Your task to perform on an android device: change keyboard looks Image 0: 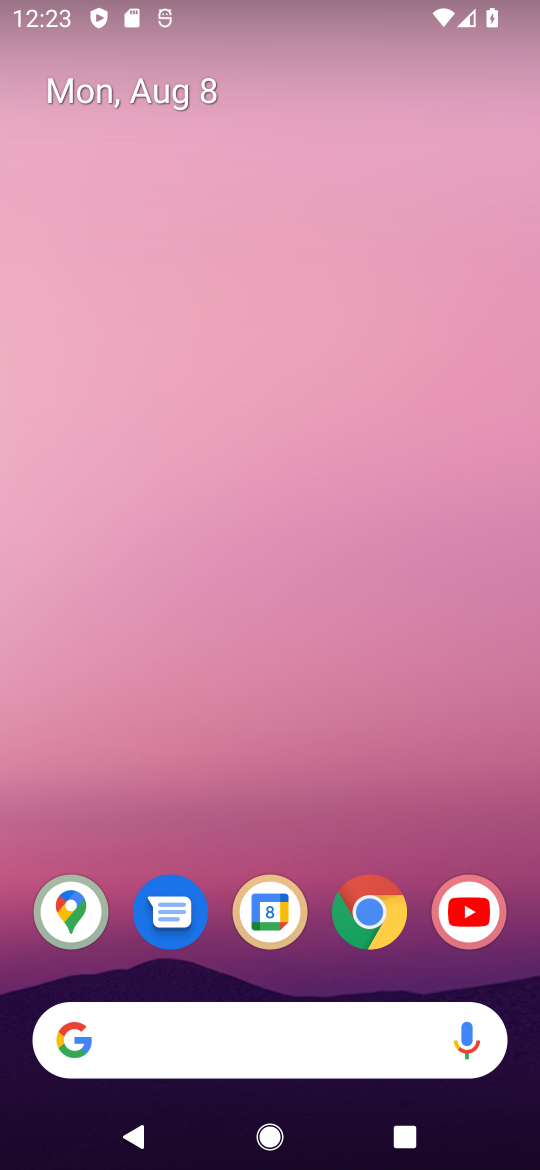
Step 0: drag from (251, 957) to (361, 34)
Your task to perform on an android device: change keyboard looks Image 1: 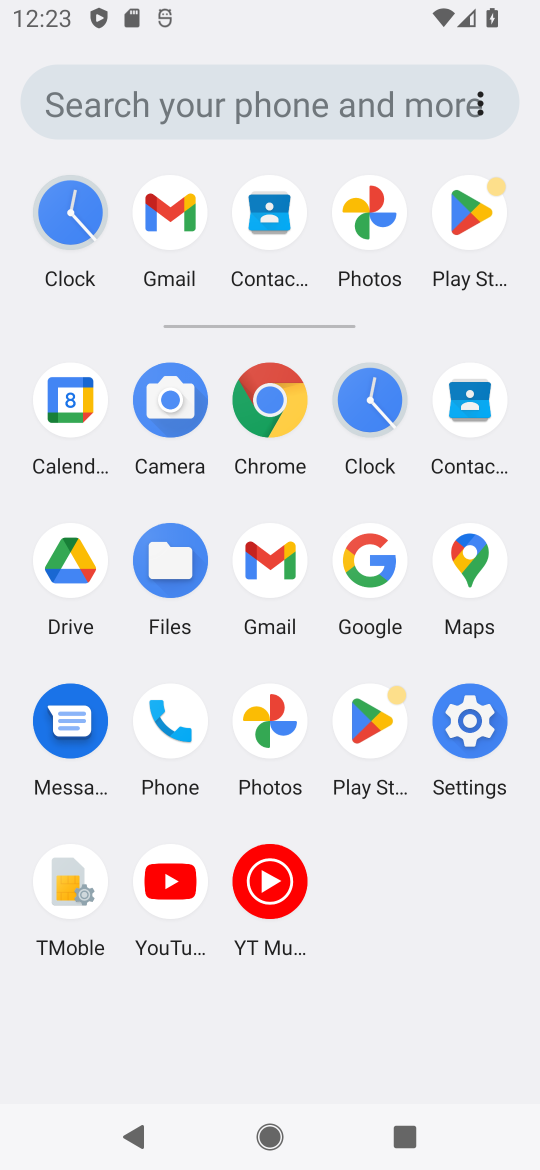
Step 1: click (464, 727)
Your task to perform on an android device: change keyboard looks Image 2: 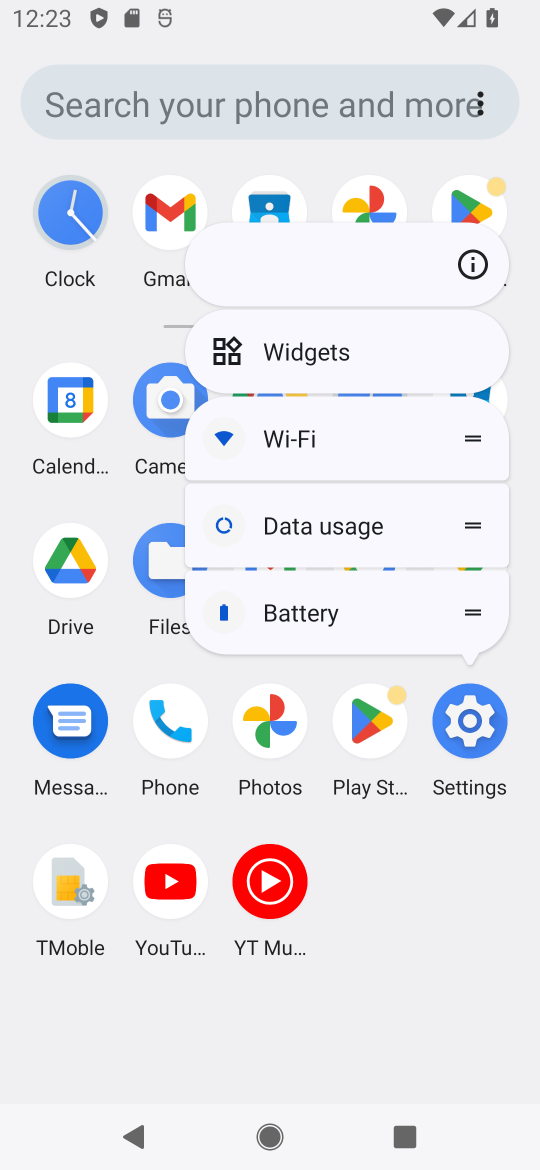
Step 2: click (450, 715)
Your task to perform on an android device: change keyboard looks Image 3: 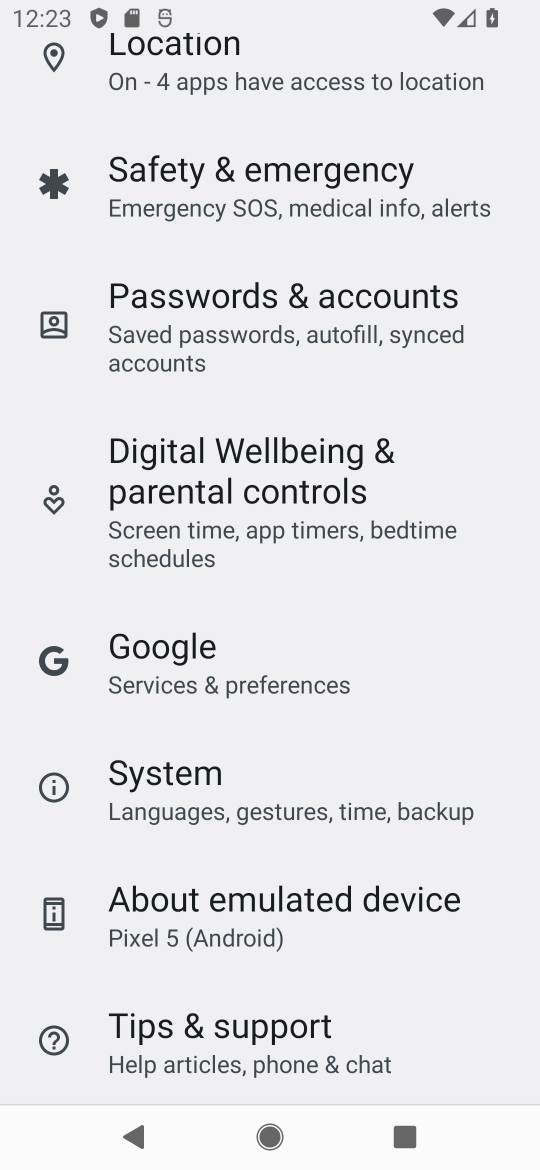
Step 3: drag from (247, 991) to (369, 28)
Your task to perform on an android device: change keyboard looks Image 4: 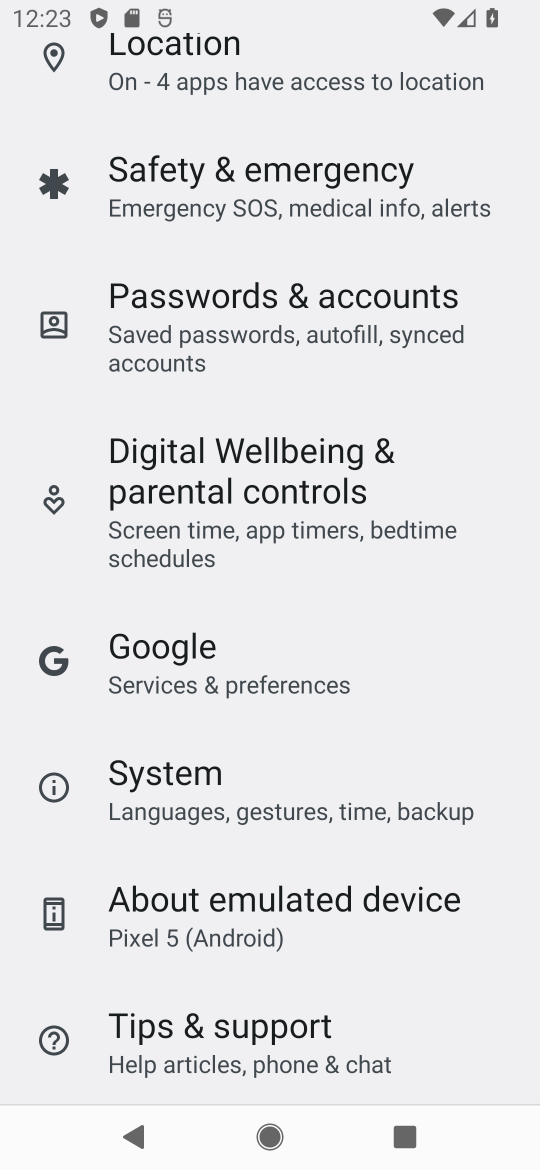
Step 4: click (193, 791)
Your task to perform on an android device: change keyboard looks Image 5: 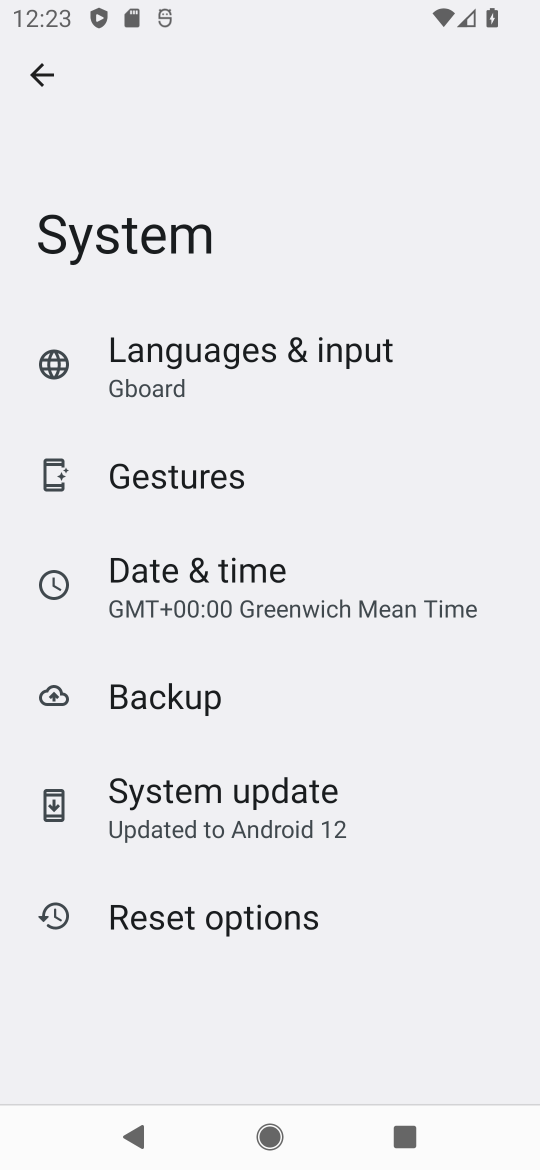
Step 5: click (197, 347)
Your task to perform on an android device: change keyboard looks Image 6: 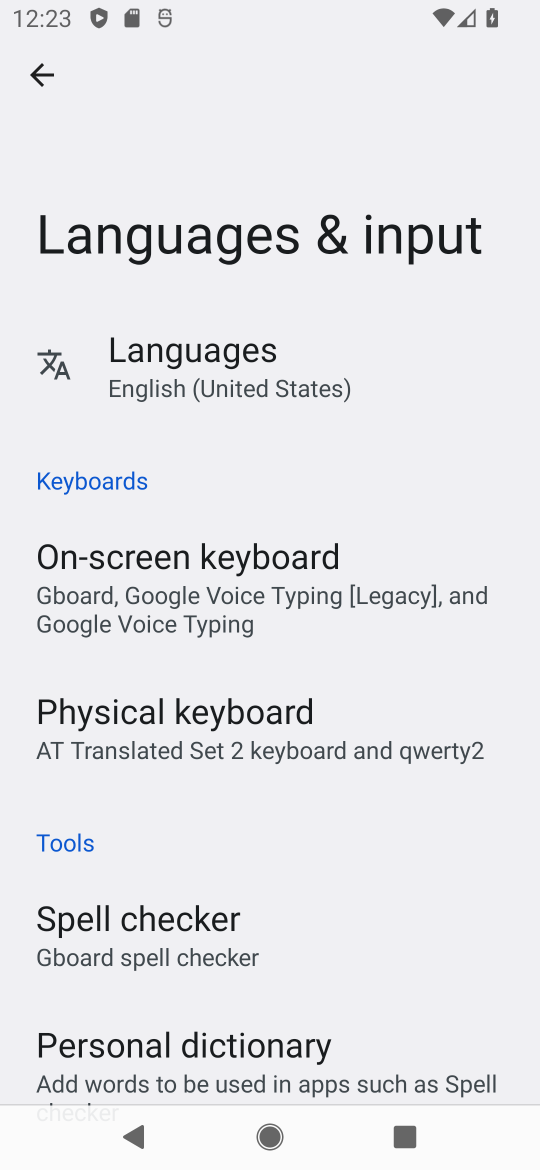
Step 6: click (218, 575)
Your task to perform on an android device: change keyboard looks Image 7: 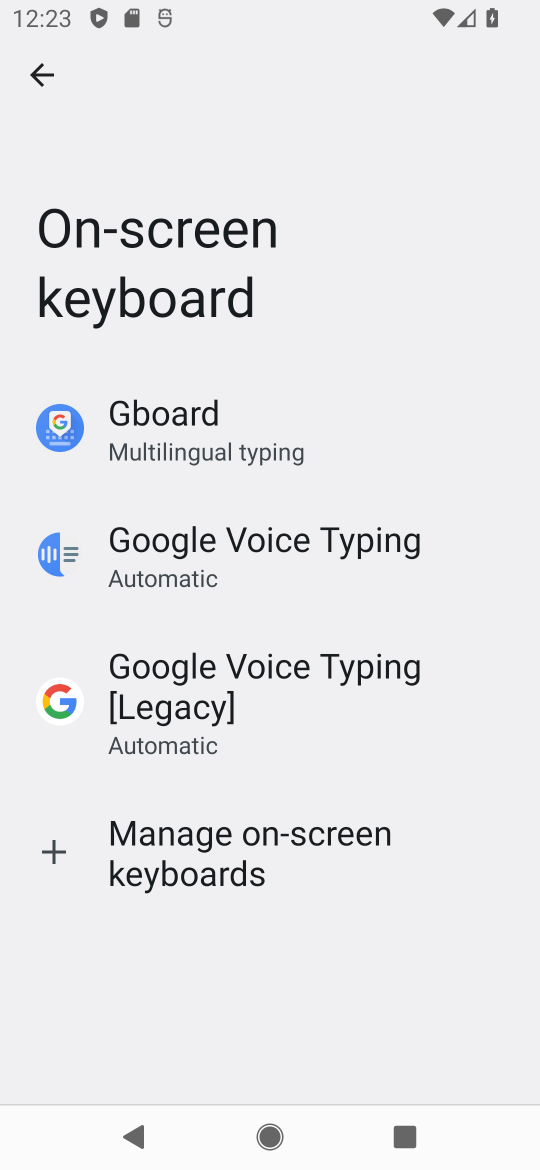
Step 7: click (198, 440)
Your task to perform on an android device: change keyboard looks Image 8: 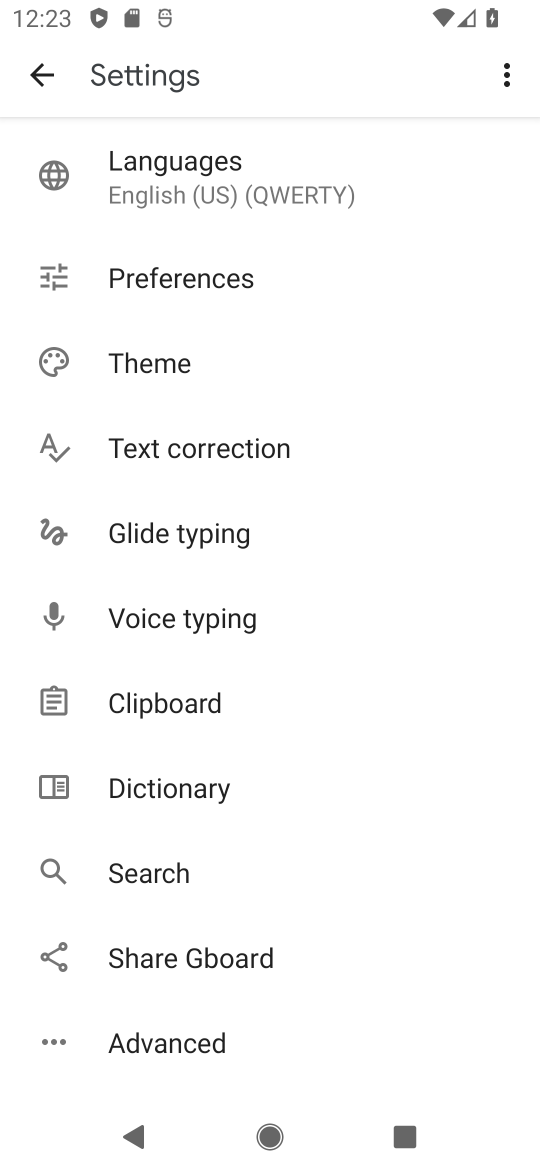
Step 8: click (161, 368)
Your task to perform on an android device: change keyboard looks Image 9: 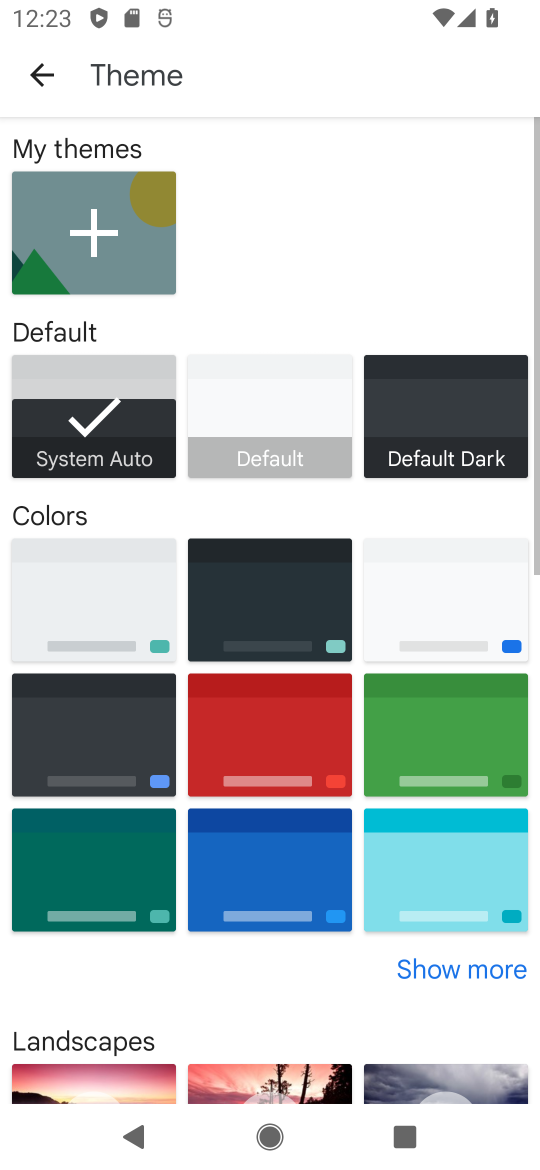
Step 9: click (279, 761)
Your task to perform on an android device: change keyboard looks Image 10: 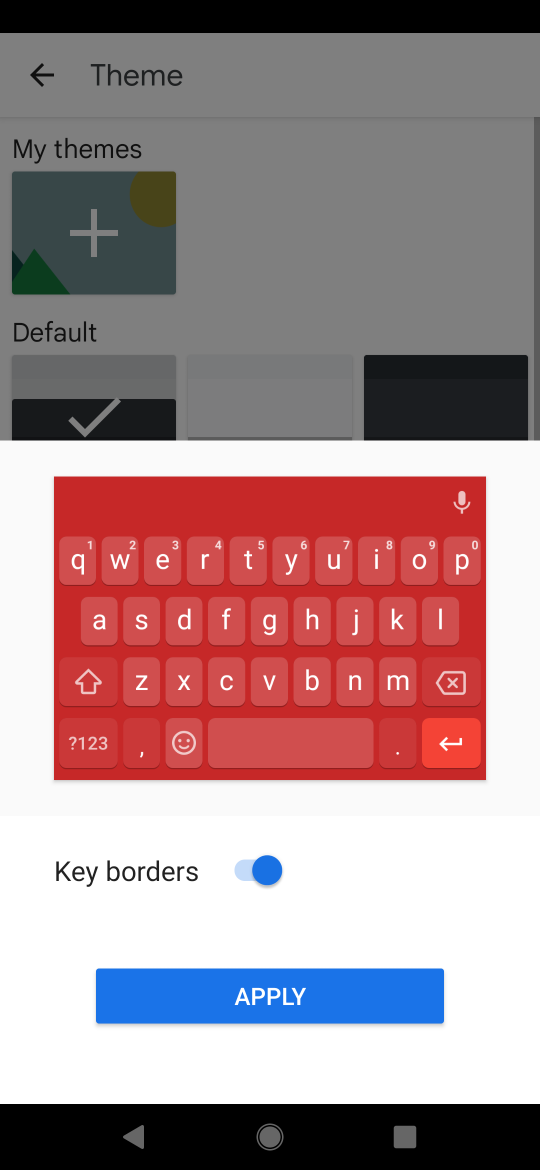
Step 10: click (238, 1001)
Your task to perform on an android device: change keyboard looks Image 11: 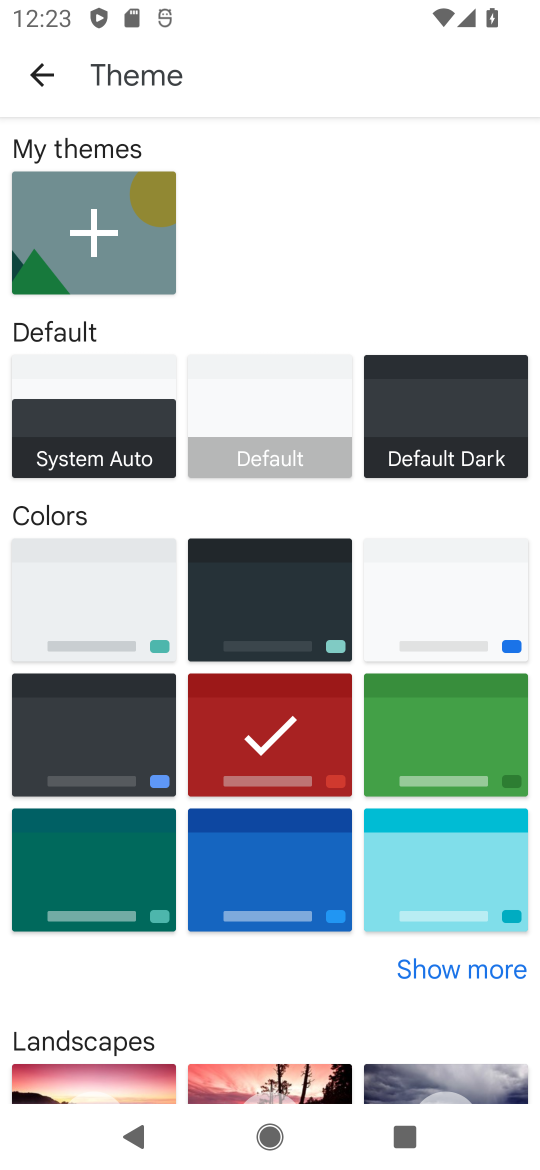
Step 11: task complete